Your task to perform on an android device: turn off sleep mode Image 0: 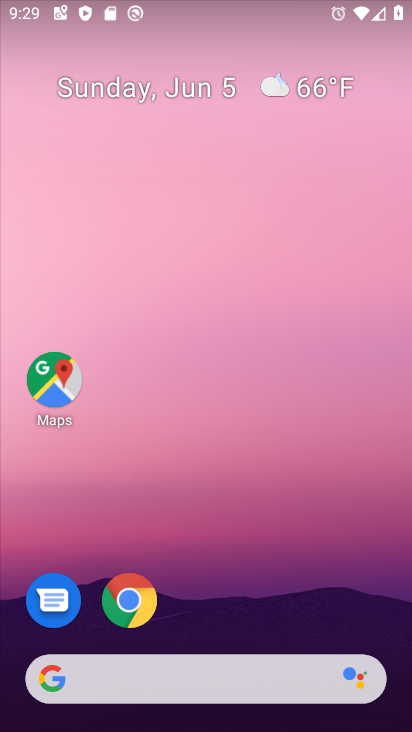
Step 0: drag from (341, 620) to (304, 22)
Your task to perform on an android device: turn off sleep mode Image 1: 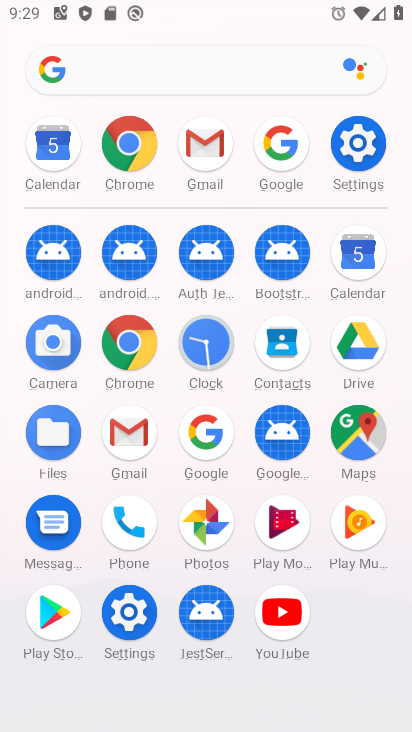
Step 1: click (346, 151)
Your task to perform on an android device: turn off sleep mode Image 2: 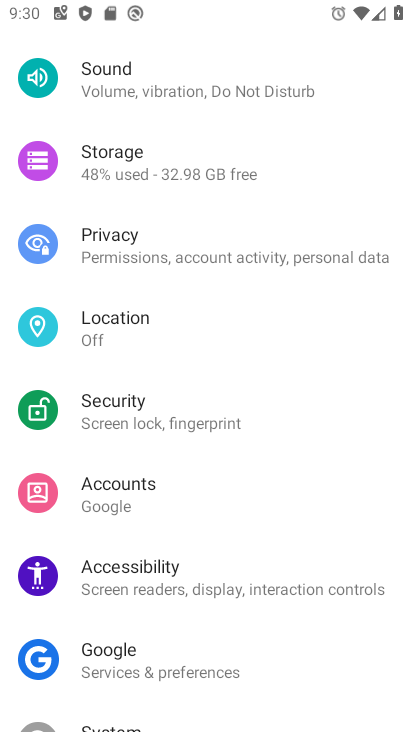
Step 2: task complete